Your task to perform on an android device: turn pop-ups off in chrome Image 0: 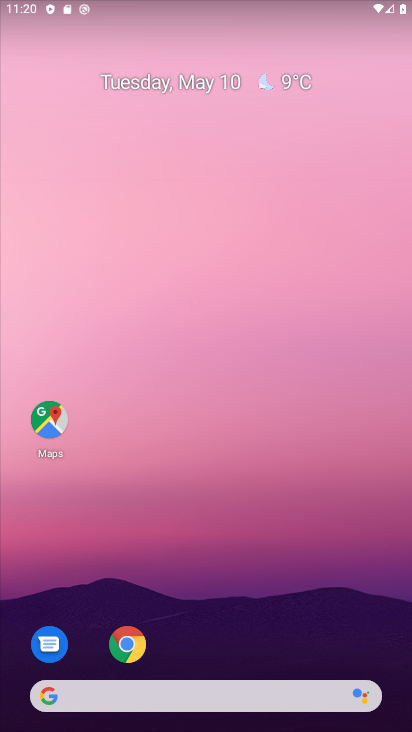
Step 0: drag from (216, 655) to (274, 226)
Your task to perform on an android device: turn pop-ups off in chrome Image 1: 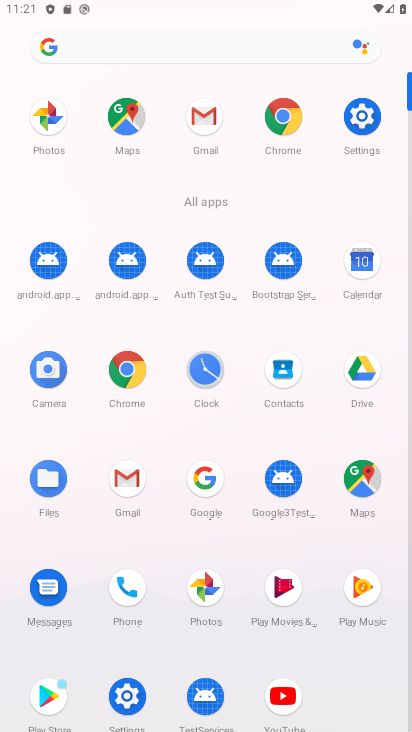
Step 1: click (126, 365)
Your task to perform on an android device: turn pop-ups off in chrome Image 2: 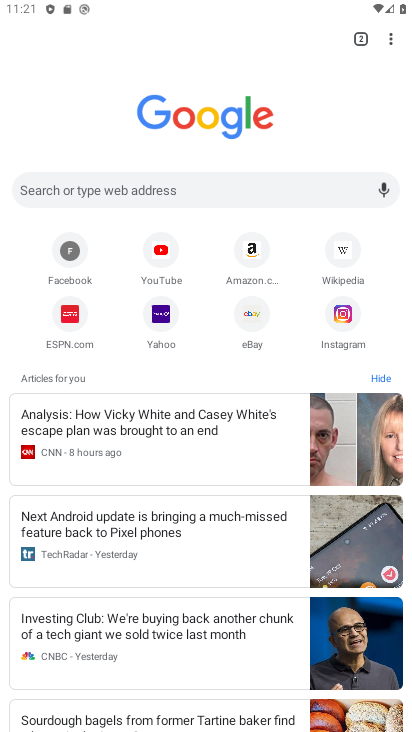
Step 2: click (392, 38)
Your task to perform on an android device: turn pop-ups off in chrome Image 3: 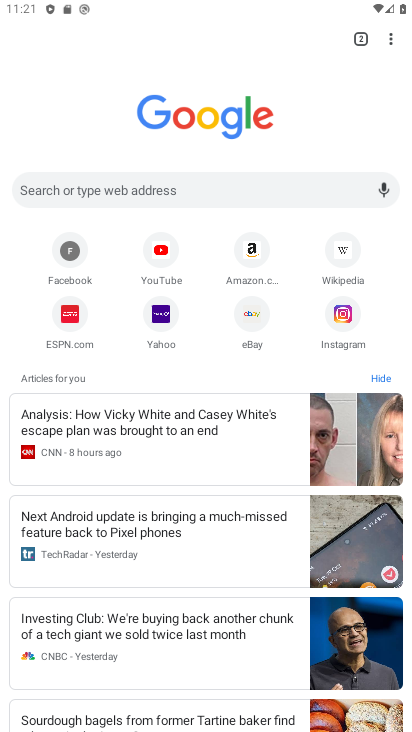
Step 3: click (395, 46)
Your task to perform on an android device: turn pop-ups off in chrome Image 4: 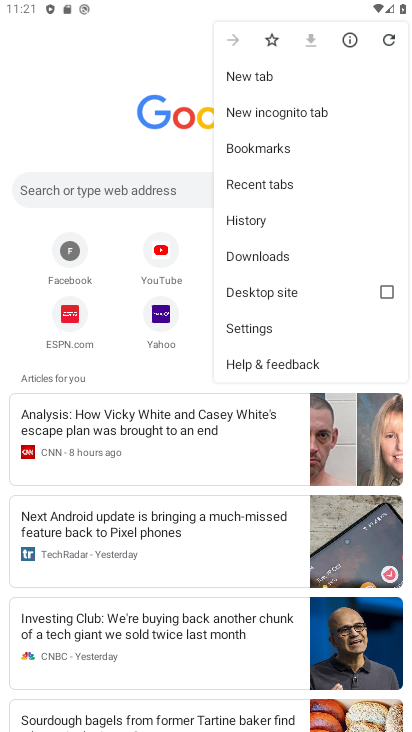
Step 4: click (264, 328)
Your task to perform on an android device: turn pop-ups off in chrome Image 5: 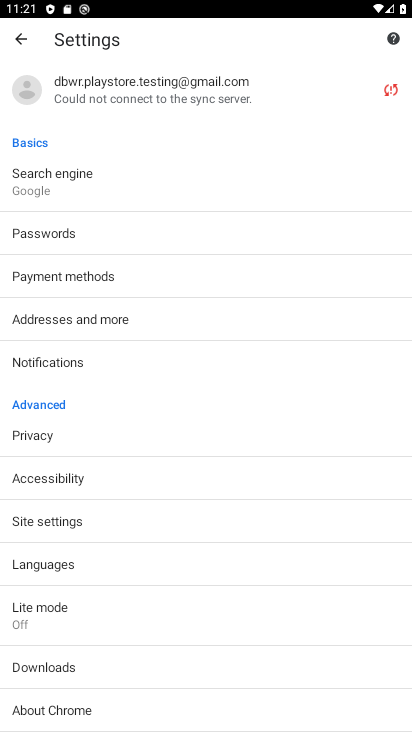
Step 5: click (72, 507)
Your task to perform on an android device: turn pop-ups off in chrome Image 6: 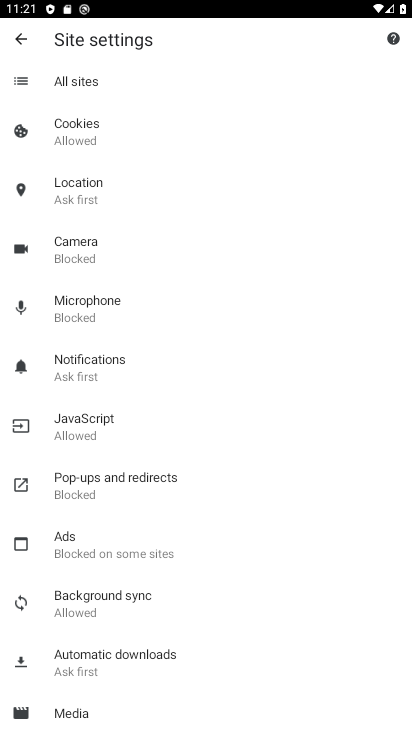
Step 6: click (91, 475)
Your task to perform on an android device: turn pop-ups off in chrome Image 7: 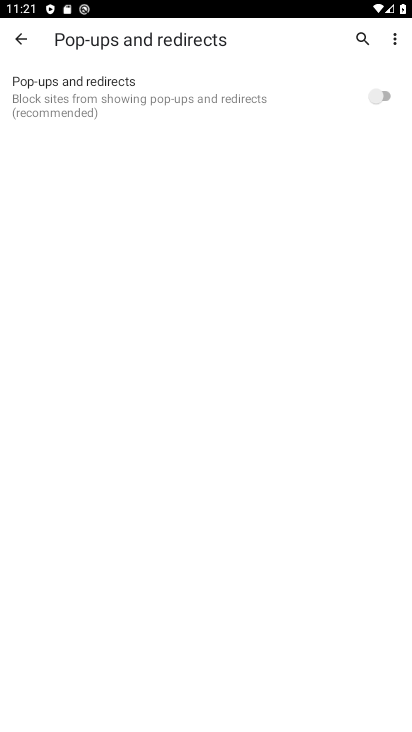
Step 7: task complete